Your task to perform on an android device: What is the news today? Image 0: 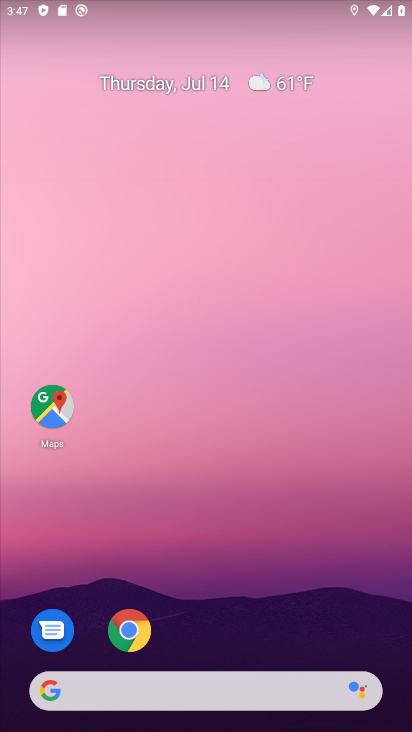
Step 0: drag from (227, 632) to (164, 108)
Your task to perform on an android device: What is the news today? Image 1: 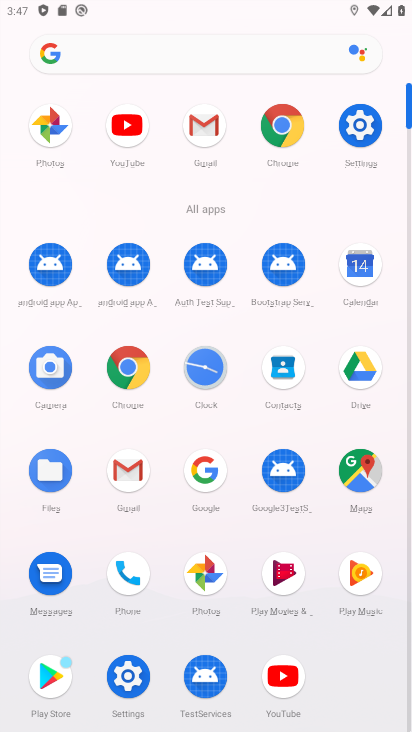
Step 1: click (283, 119)
Your task to perform on an android device: What is the news today? Image 2: 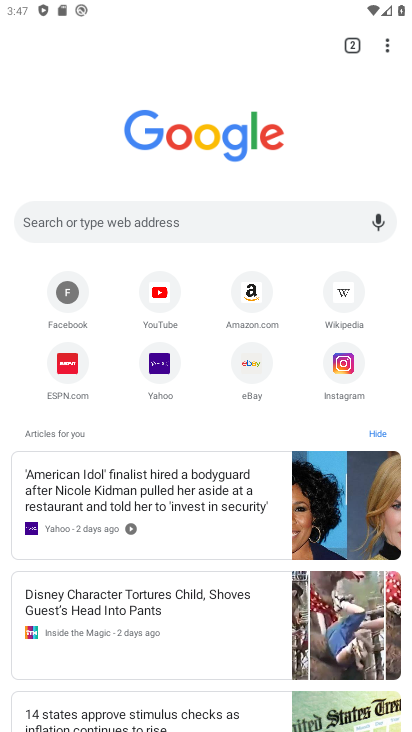
Step 2: click (201, 235)
Your task to perform on an android device: What is the news today? Image 3: 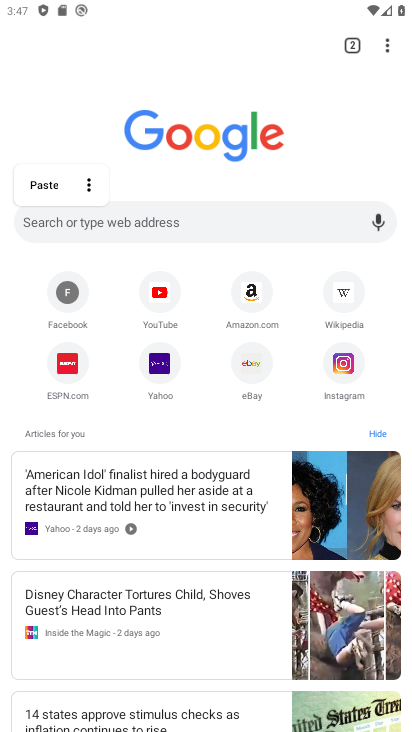
Step 3: type "What is the news today?"
Your task to perform on an android device: What is the news today? Image 4: 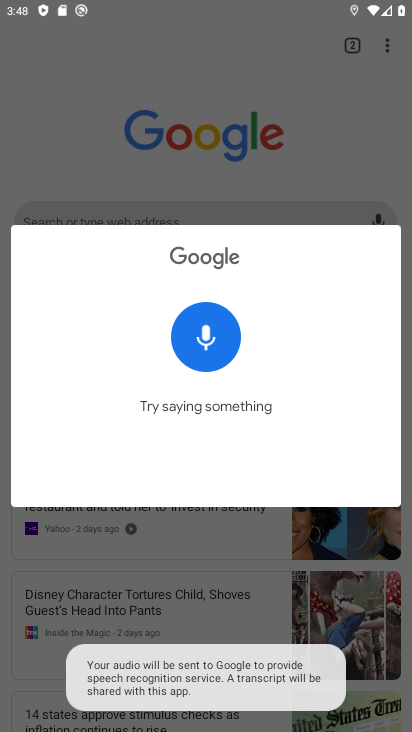
Step 4: click (96, 234)
Your task to perform on an android device: What is the news today? Image 5: 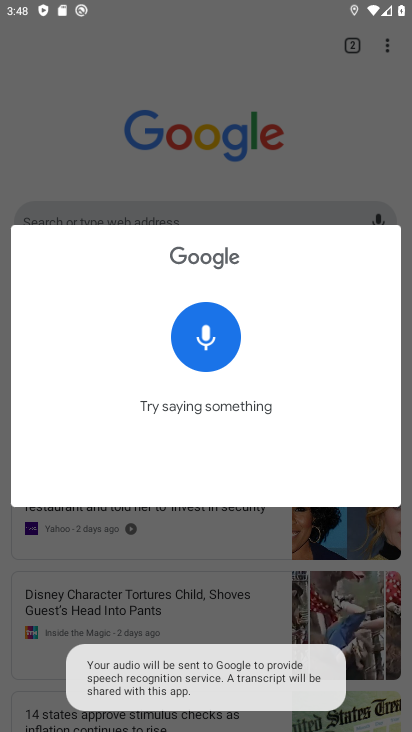
Step 5: click (256, 207)
Your task to perform on an android device: What is the news today? Image 6: 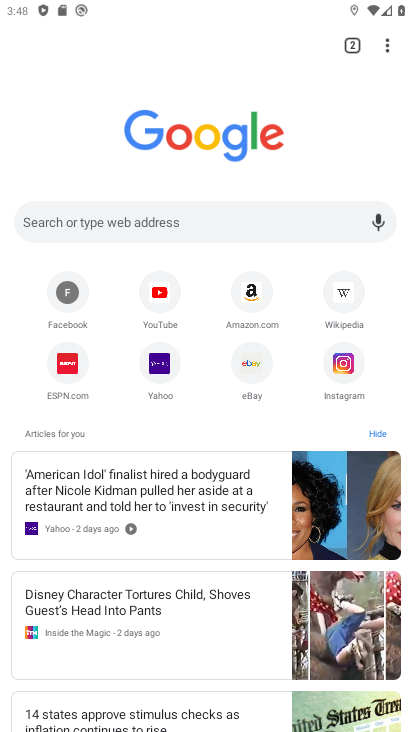
Step 6: click (104, 216)
Your task to perform on an android device: What is the news today? Image 7: 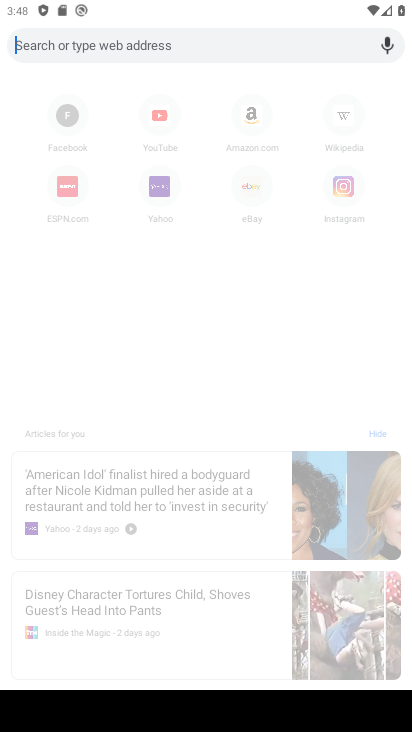
Step 7: type "What is the news today?"
Your task to perform on an android device: What is the news today? Image 8: 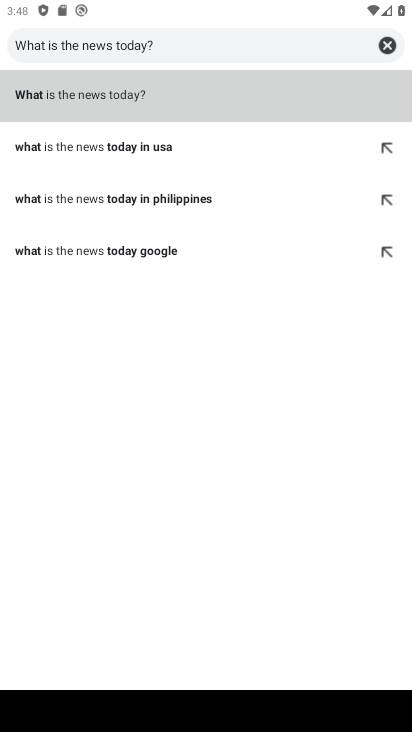
Step 8: click (91, 95)
Your task to perform on an android device: What is the news today? Image 9: 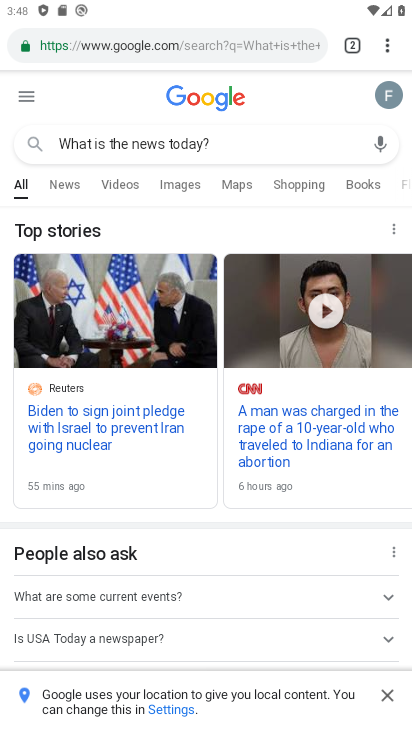
Step 9: task complete